Your task to perform on an android device: change the clock display to show seconds Image 0: 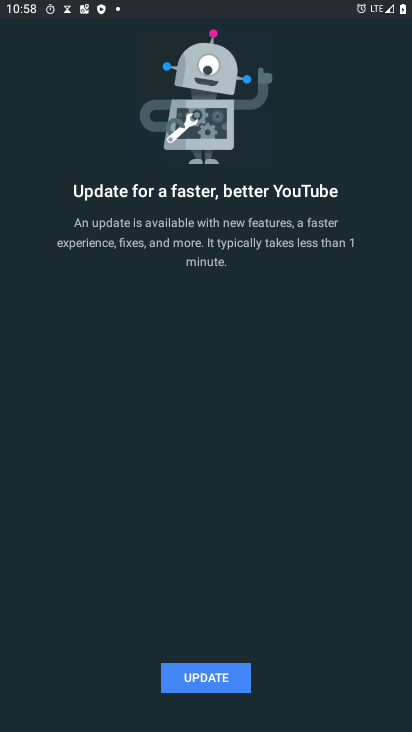
Step 0: click (232, 207)
Your task to perform on an android device: change the clock display to show seconds Image 1: 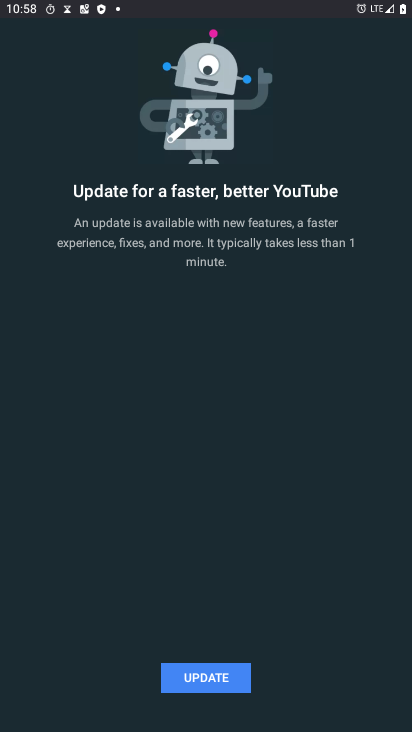
Step 1: press back button
Your task to perform on an android device: change the clock display to show seconds Image 2: 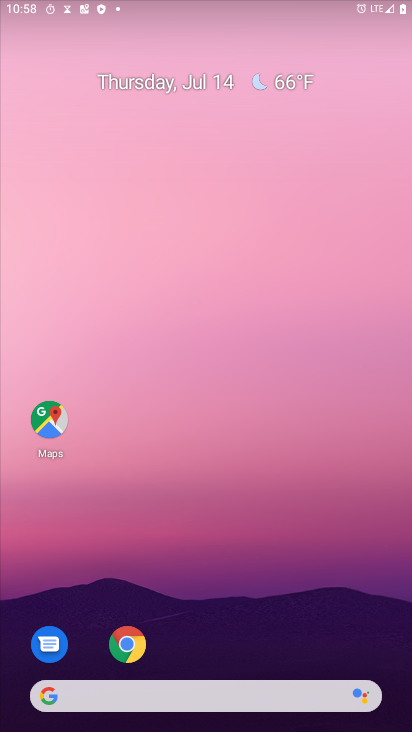
Step 2: drag from (167, 666) to (151, 322)
Your task to perform on an android device: change the clock display to show seconds Image 3: 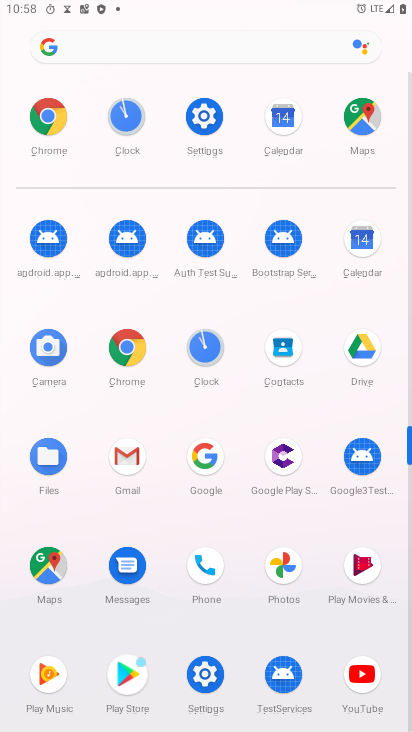
Step 3: click (321, 356)
Your task to perform on an android device: change the clock display to show seconds Image 4: 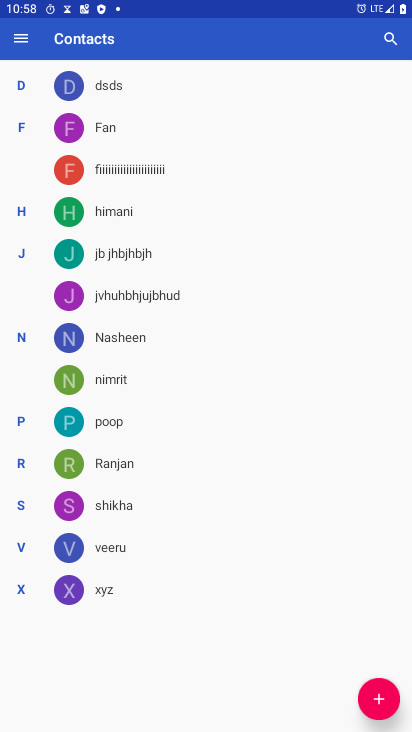
Step 4: press back button
Your task to perform on an android device: change the clock display to show seconds Image 5: 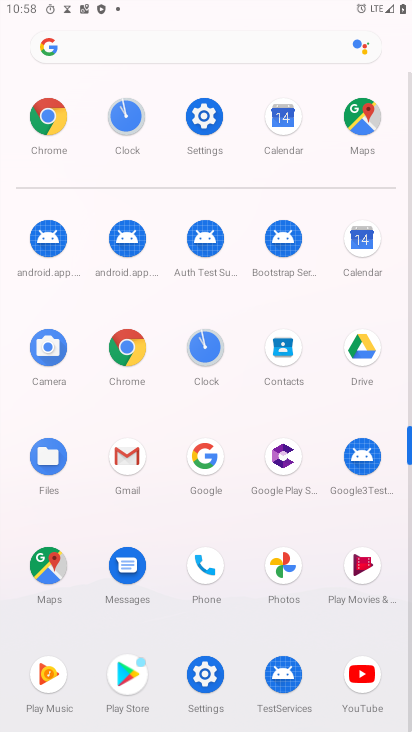
Step 5: click (202, 117)
Your task to perform on an android device: change the clock display to show seconds Image 6: 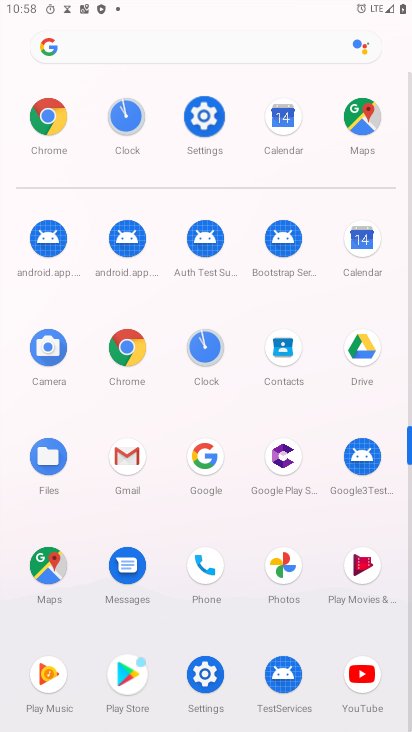
Step 6: click (202, 117)
Your task to perform on an android device: change the clock display to show seconds Image 7: 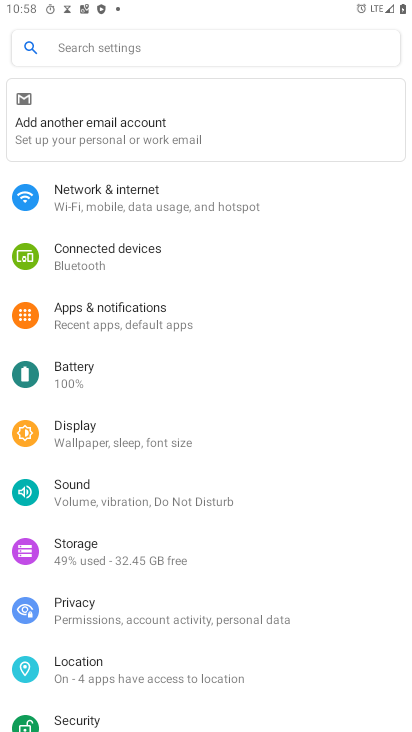
Step 7: click (76, 421)
Your task to perform on an android device: change the clock display to show seconds Image 8: 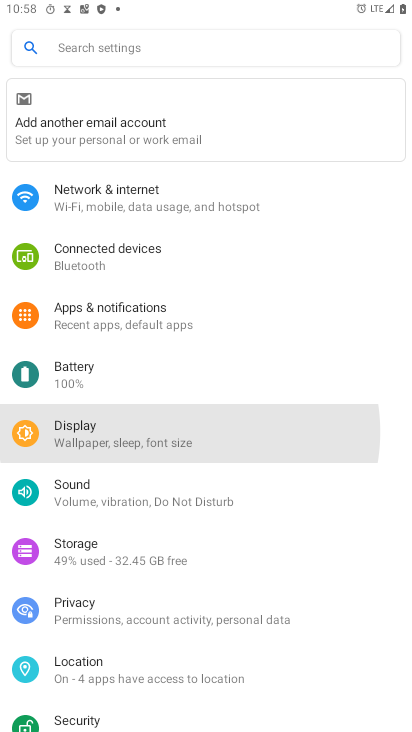
Step 8: click (76, 427)
Your task to perform on an android device: change the clock display to show seconds Image 9: 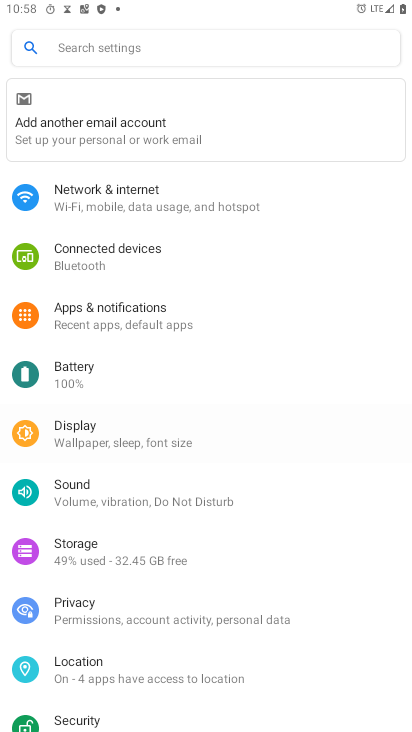
Step 9: click (77, 428)
Your task to perform on an android device: change the clock display to show seconds Image 10: 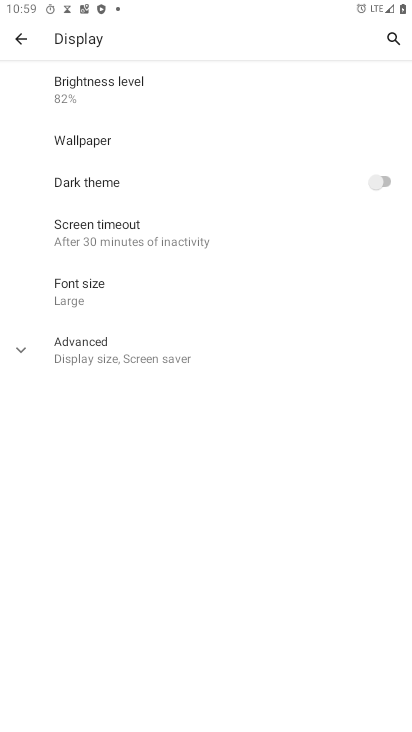
Step 10: task complete